Your task to perform on an android device: Open wifi settings Image 0: 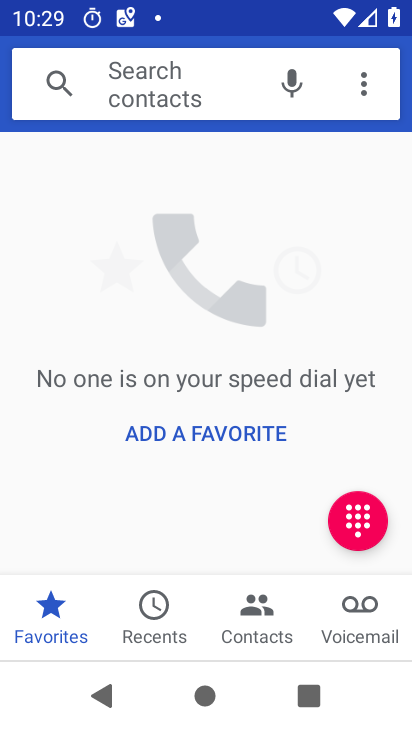
Step 0: press home button
Your task to perform on an android device: Open wifi settings Image 1: 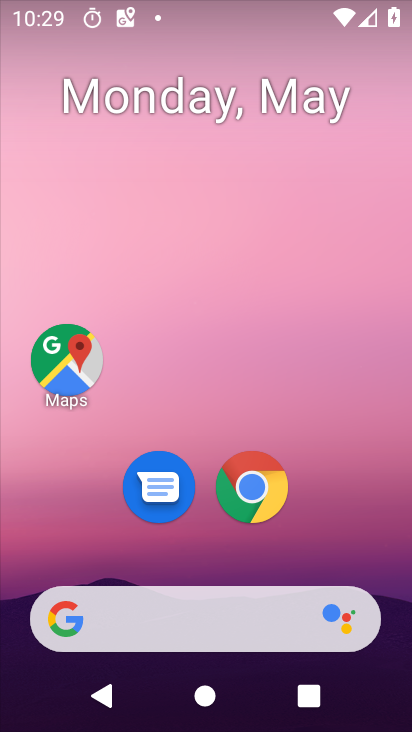
Step 1: drag from (324, 560) to (401, 91)
Your task to perform on an android device: Open wifi settings Image 2: 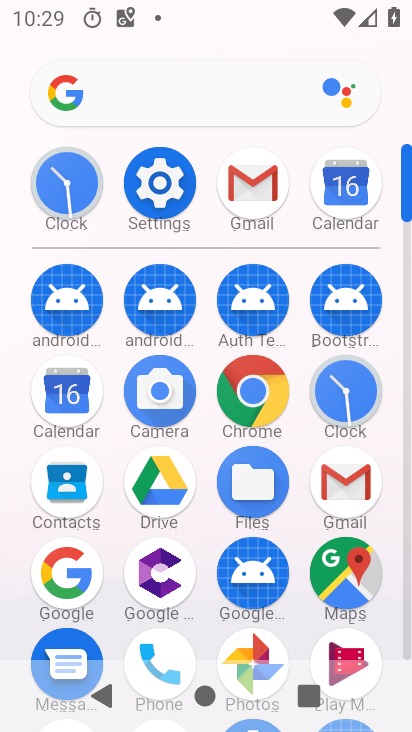
Step 2: click (157, 186)
Your task to perform on an android device: Open wifi settings Image 3: 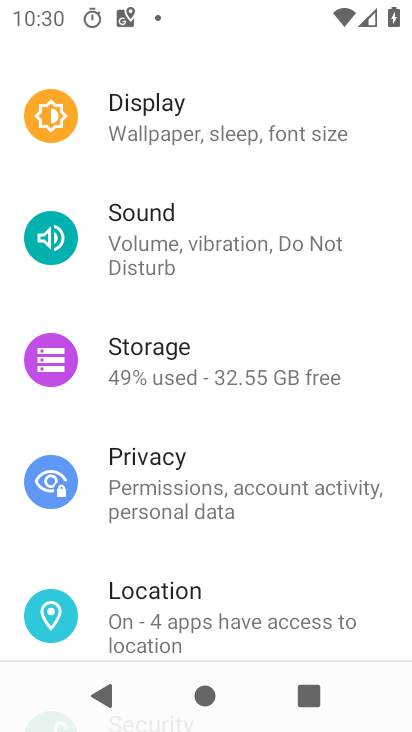
Step 3: drag from (150, 234) to (224, 506)
Your task to perform on an android device: Open wifi settings Image 4: 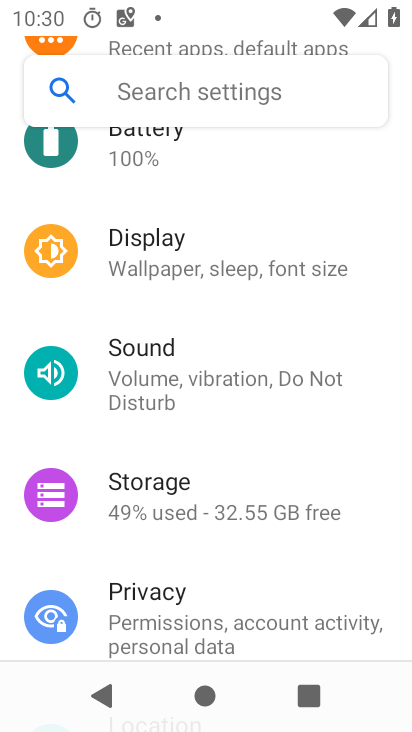
Step 4: drag from (216, 348) to (271, 520)
Your task to perform on an android device: Open wifi settings Image 5: 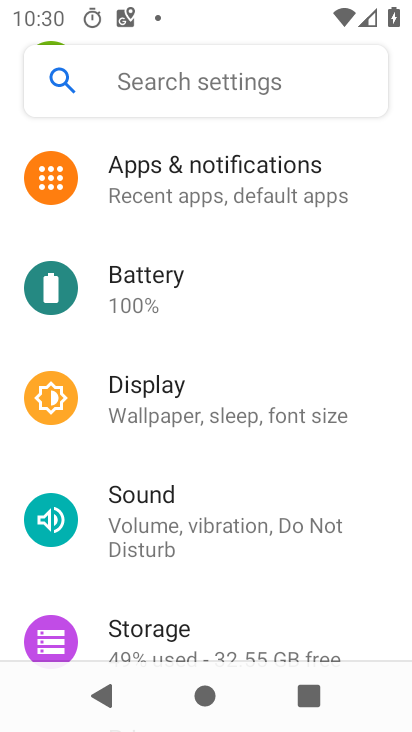
Step 5: drag from (218, 353) to (221, 560)
Your task to perform on an android device: Open wifi settings Image 6: 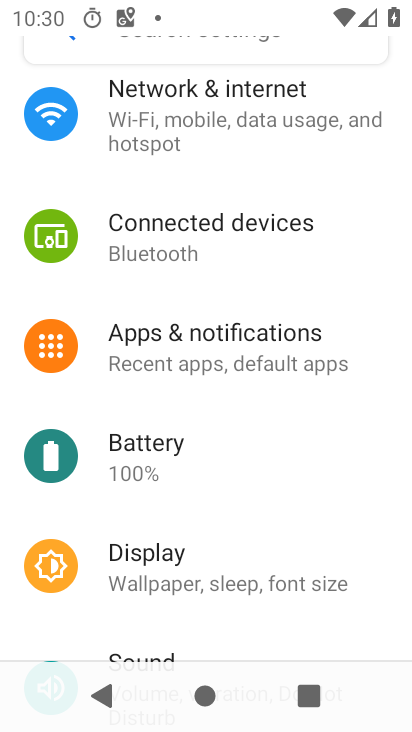
Step 6: click (214, 115)
Your task to perform on an android device: Open wifi settings Image 7: 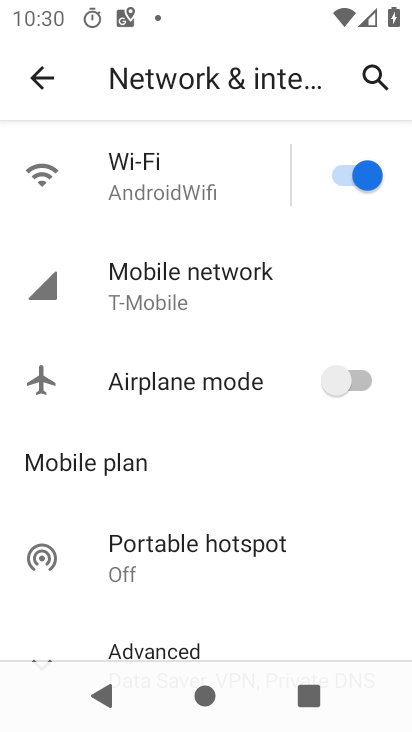
Step 7: click (149, 170)
Your task to perform on an android device: Open wifi settings Image 8: 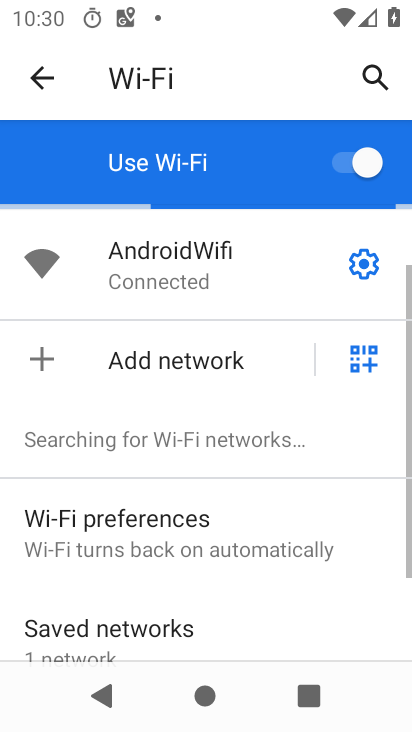
Step 8: task complete